Your task to perform on an android device: Search for Mexican restaurants on Maps Image 0: 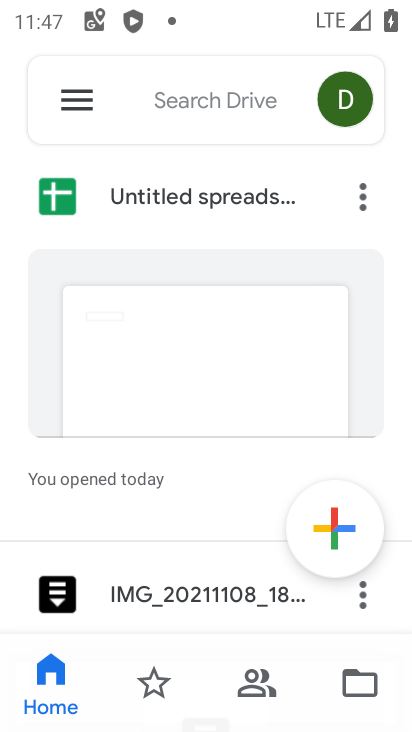
Step 0: press home button
Your task to perform on an android device: Search for Mexican restaurants on Maps Image 1: 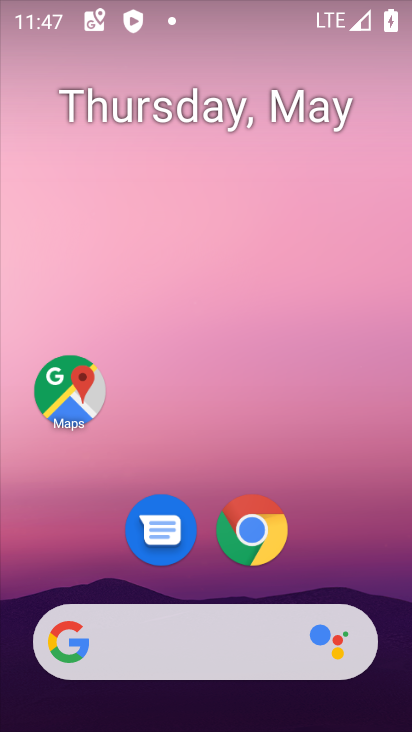
Step 1: click (64, 362)
Your task to perform on an android device: Search for Mexican restaurants on Maps Image 2: 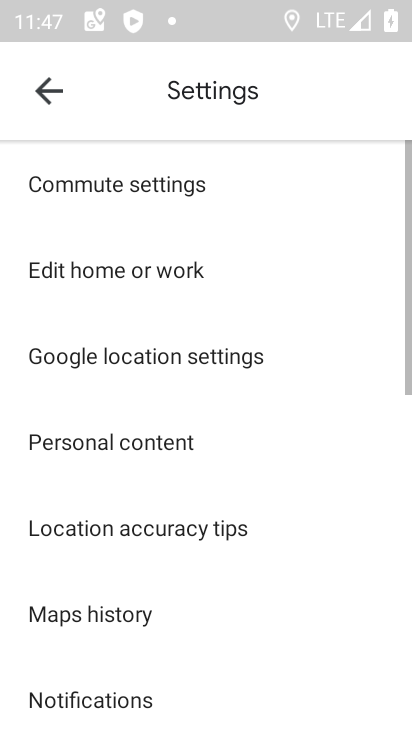
Step 2: click (57, 101)
Your task to perform on an android device: Search for Mexican restaurants on Maps Image 3: 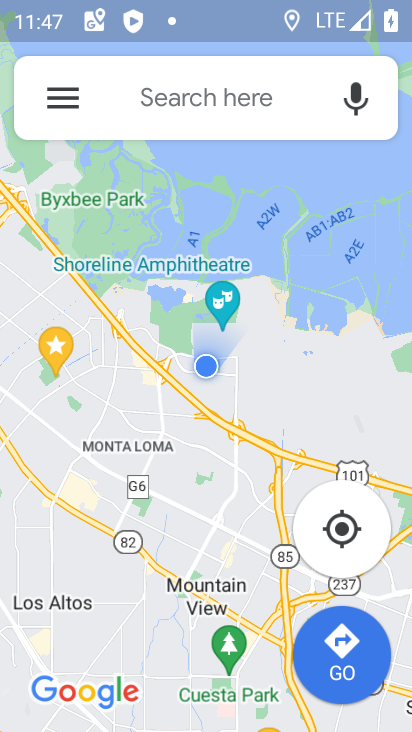
Step 3: click (239, 87)
Your task to perform on an android device: Search for Mexican restaurants on Maps Image 4: 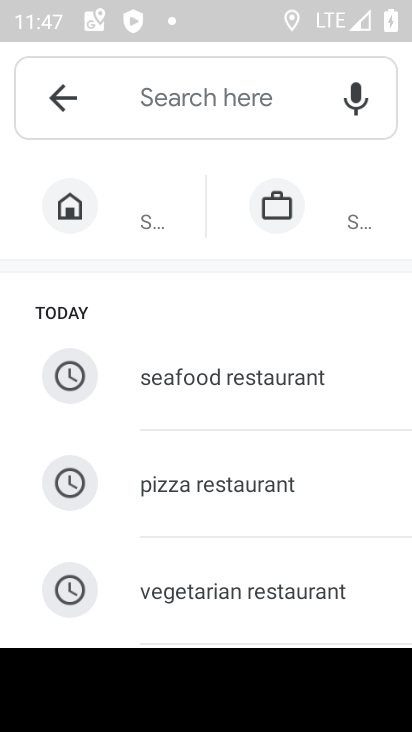
Step 4: drag from (244, 577) to (202, 122)
Your task to perform on an android device: Search for Mexican restaurants on Maps Image 5: 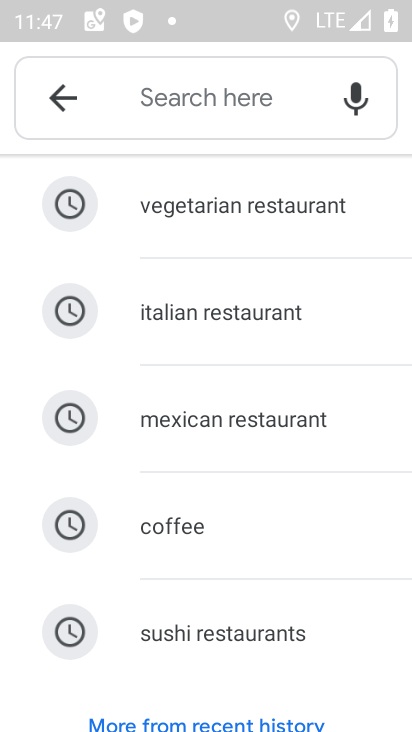
Step 5: click (242, 434)
Your task to perform on an android device: Search for Mexican restaurants on Maps Image 6: 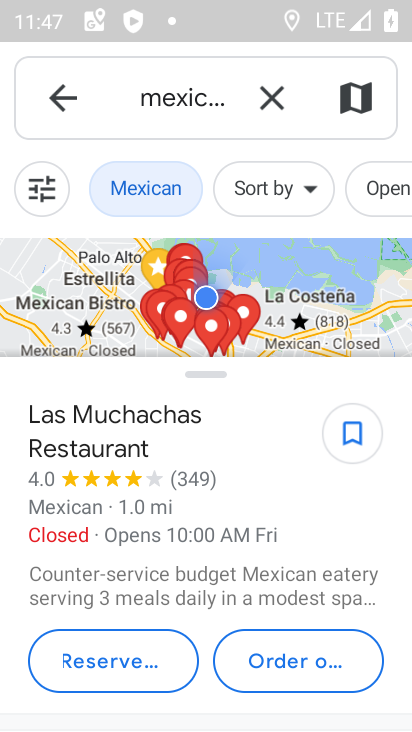
Step 6: task complete